Your task to perform on an android device: toggle notification dots Image 0: 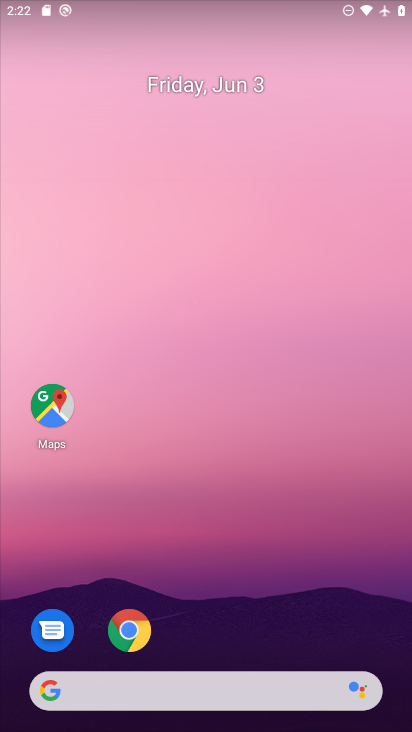
Step 0: drag from (209, 726) to (179, 191)
Your task to perform on an android device: toggle notification dots Image 1: 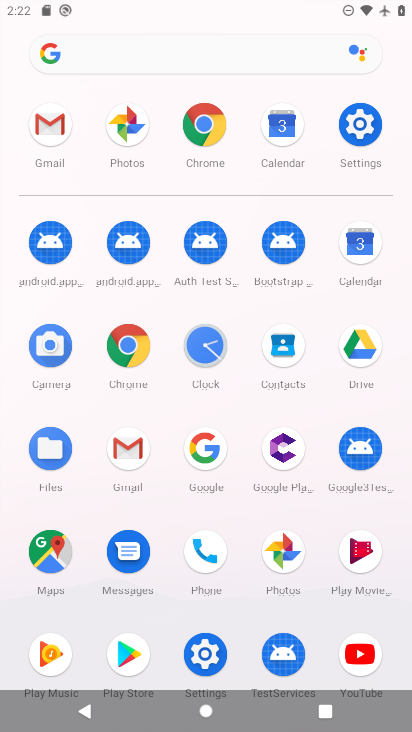
Step 1: click (368, 135)
Your task to perform on an android device: toggle notification dots Image 2: 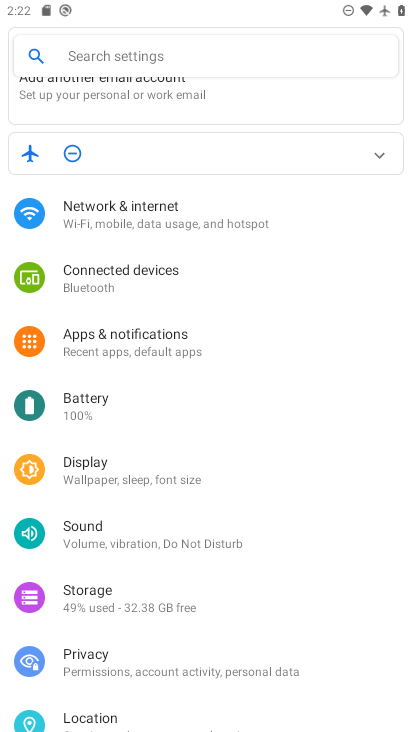
Step 2: click (107, 339)
Your task to perform on an android device: toggle notification dots Image 3: 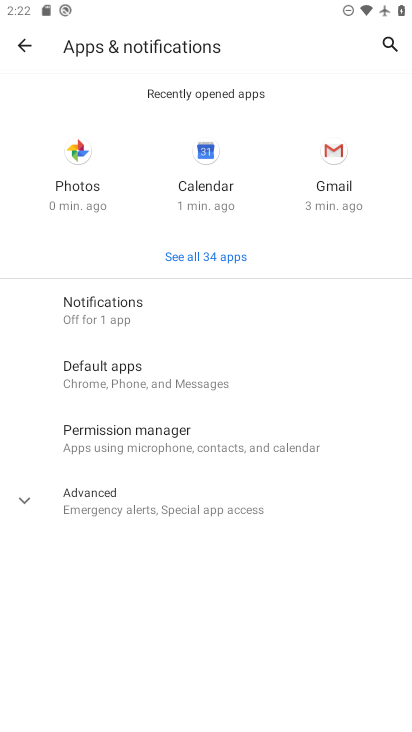
Step 3: click (98, 307)
Your task to perform on an android device: toggle notification dots Image 4: 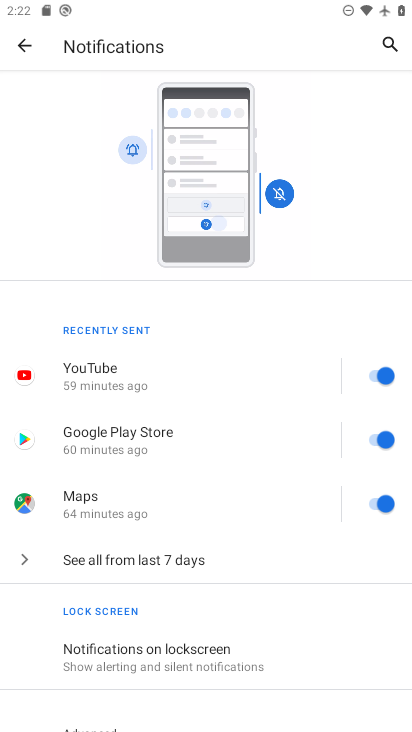
Step 4: drag from (215, 701) to (215, 339)
Your task to perform on an android device: toggle notification dots Image 5: 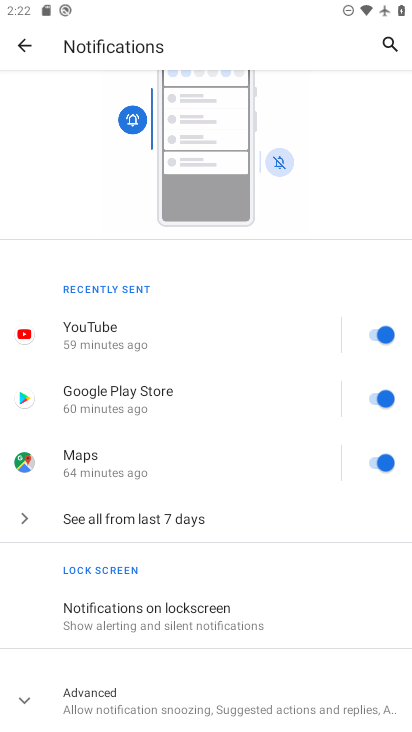
Step 5: click (78, 700)
Your task to perform on an android device: toggle notification dots Image 6: 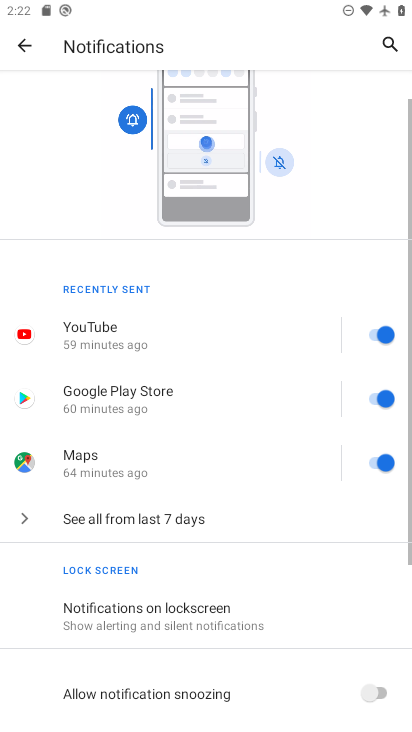
Step 6: drag from (190, 698) to (190, 404)
Your task to perform on an android device: toggle notification dots Image 7: 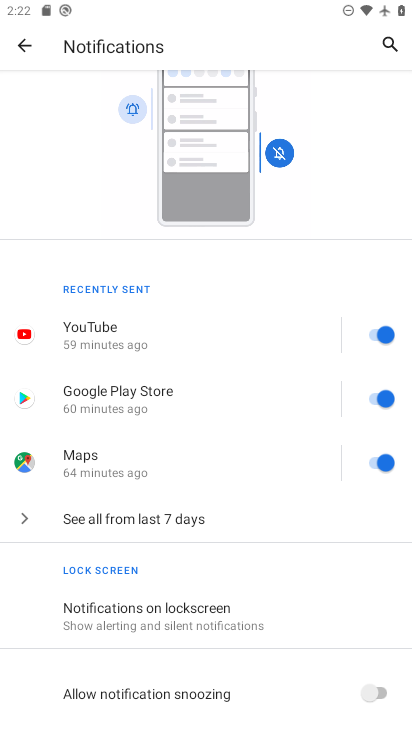
Step 7: drag from (225, 707) to (225, 402)
Your task to perform on an android device: toggle notification dots Image 8: 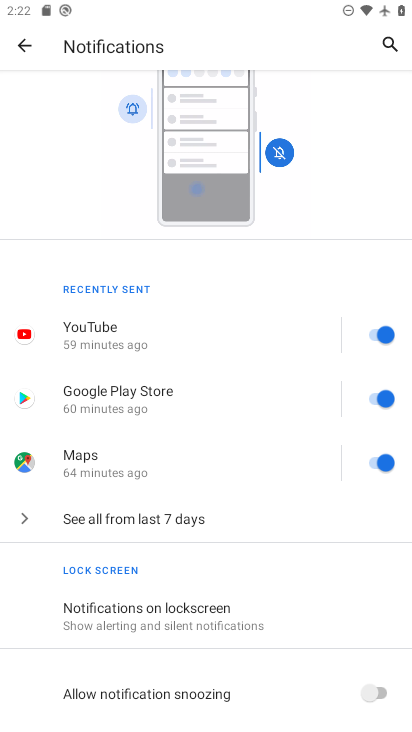
Step 8: drag from (272, 649) to (266, 461)
Your task to perform on an android device: toggle notification dots Image 9: 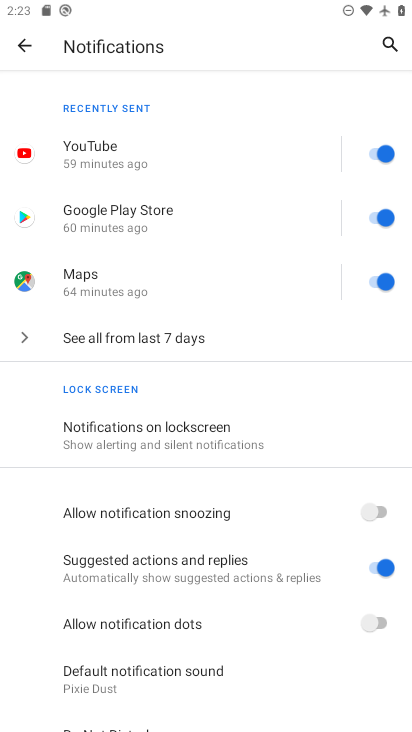
Step 9: click (381, 623)
Your task to perform on an android device: toggle notification dots Image 10: 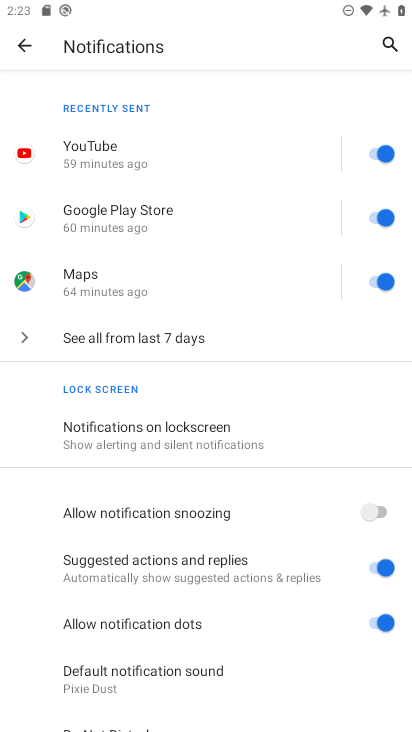
Step 10: task complete